Your task to perform on an android device: What is the news today? Image 0: 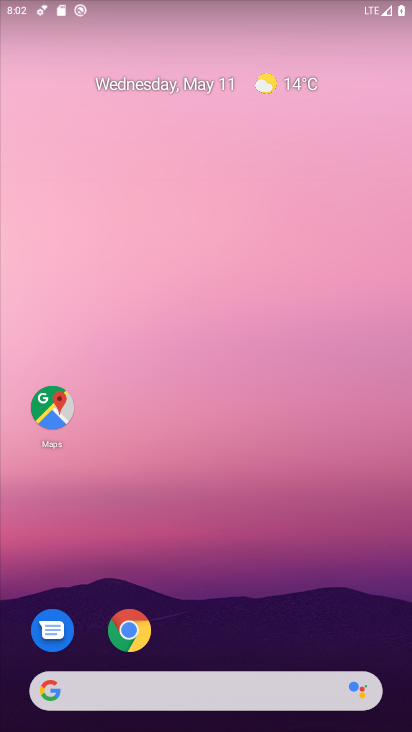
Step 0: click (133, 690)
Your task to perform on an android device: What is the news today? Image 1: 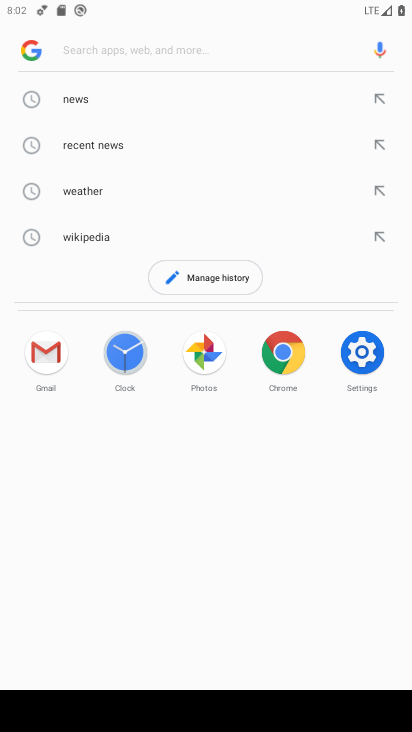
Step 1: click (135, 101)
Your task to perform on an android device: What is the news today? Image 2: 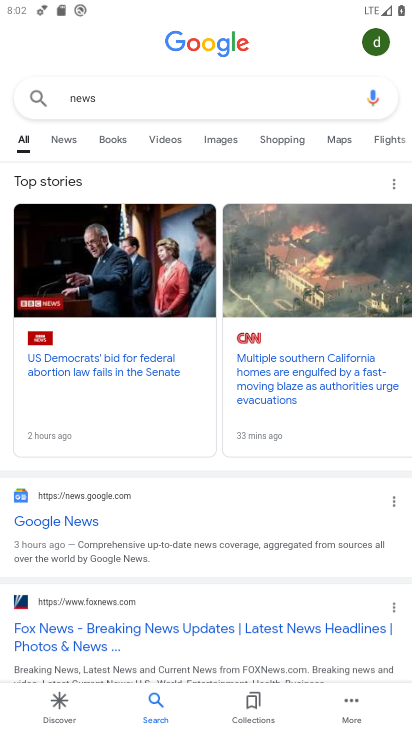
Step 2: task complete